Your task to perform on an android device: Go to accessibility settings Image 0: 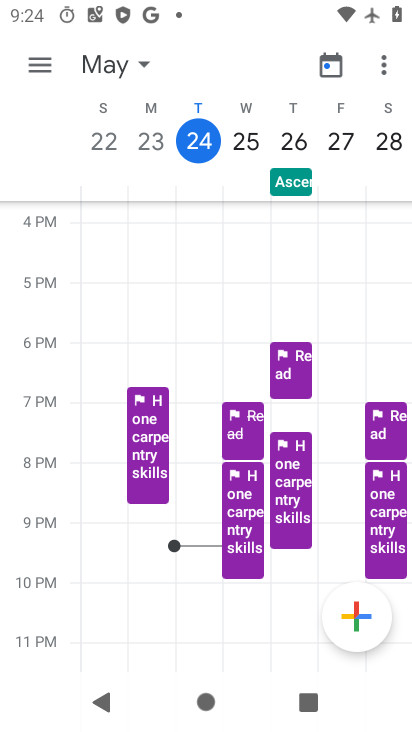
Step 0: press home button
Your task to perform on an android device: Go to accessibility settings Image 1: 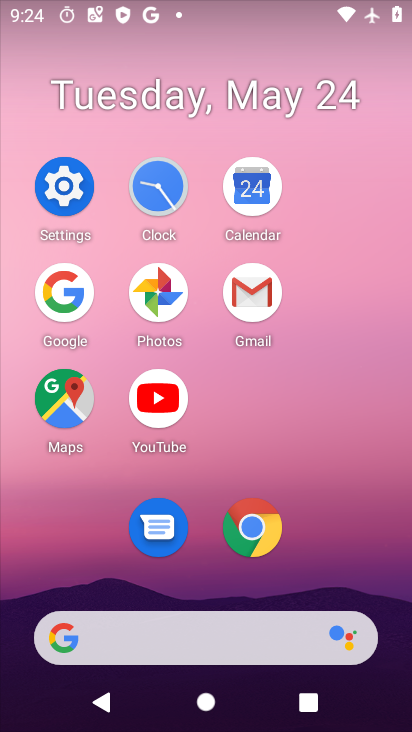
Step 1: click (77, 211)
Your task to perform on an android device: Go to accessibility settings Image 2: 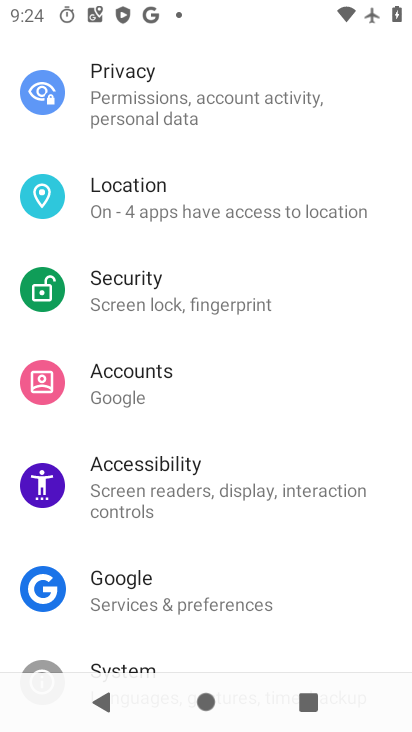
Step 2: click (257, 491)
Your task to perform on an android device: Go to accessibility settings Image 3: 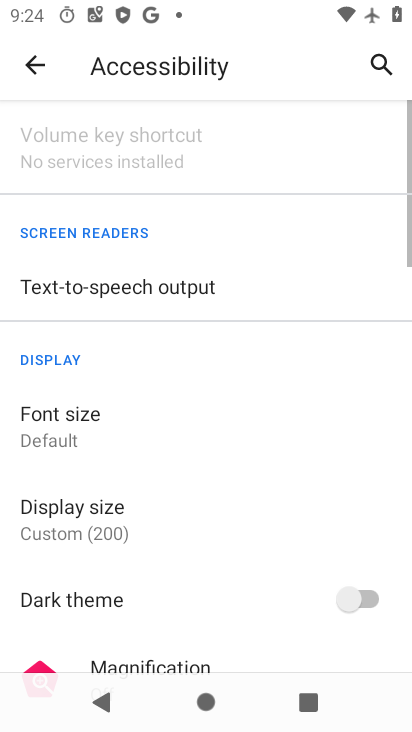
Step 3: task complete